Your task to perform on an android device: turn pop-ups on in chrome Image 0: 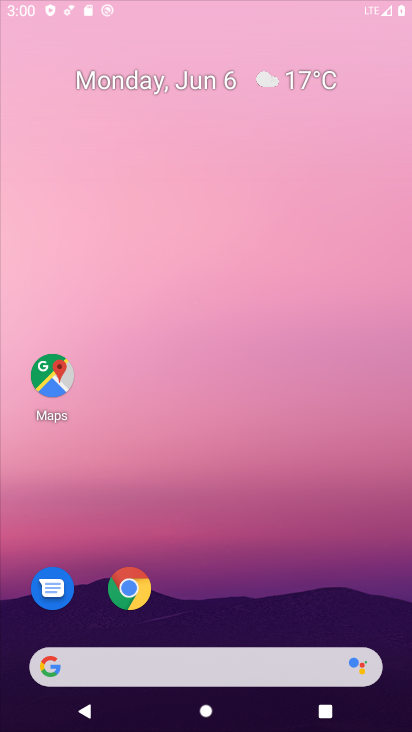
Step 0: drag from (224, 27) to (180, 4)
Your task to perform on an android device: turn pop-ups on in chrome Image 1: 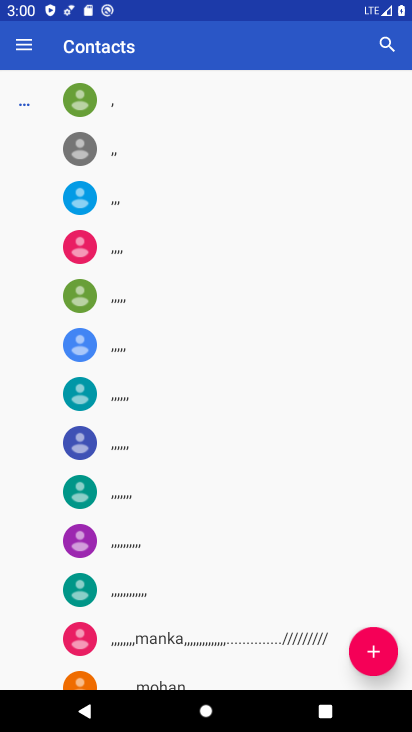
Step 1: press home button
Your task to perform on an android device: turn pop-ups on in chrome Image 2: 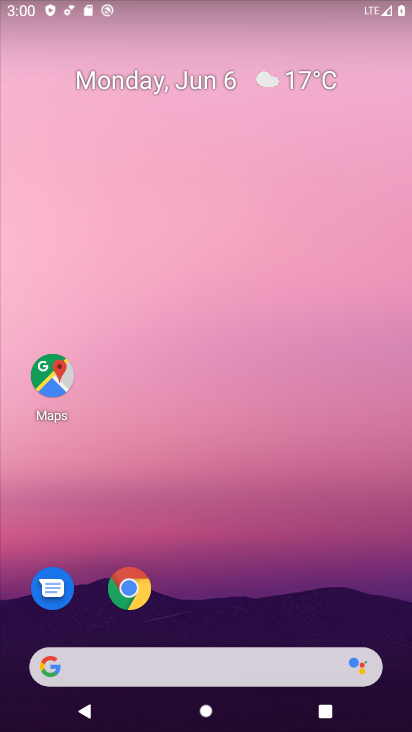
Step 2: click (127, 590)
Your task to perform on an android device: turn pop-ups on in chrome Image 3: 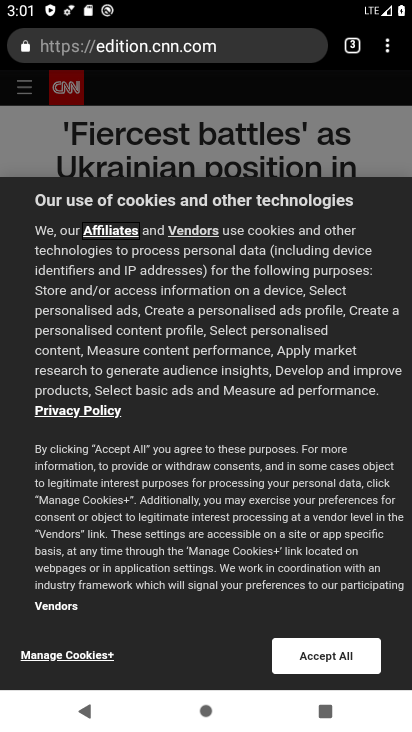
Step 3: drag from (383, 40) to (244, 501)
Your task to perform on an android device: turn pop-ups on in chrome Image 4: 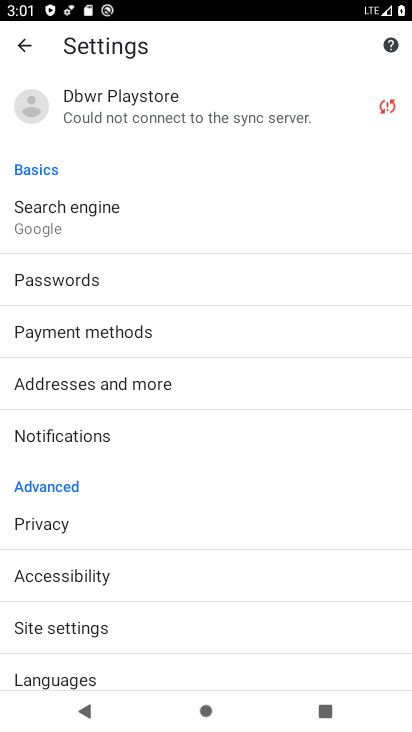
Step 4: click (131, 632)
Your task to perform on an android device: turn pop-ups on in chrome Image 5: 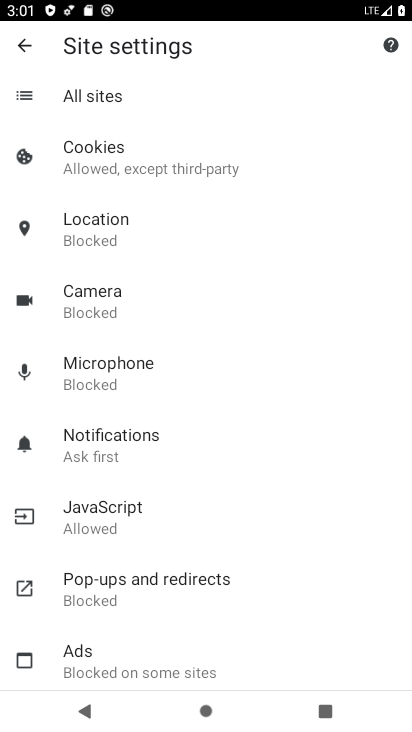
Step 5: click (176, 567)
Your task to perform on an android device: turn pop-ups on in chrome Image 6: 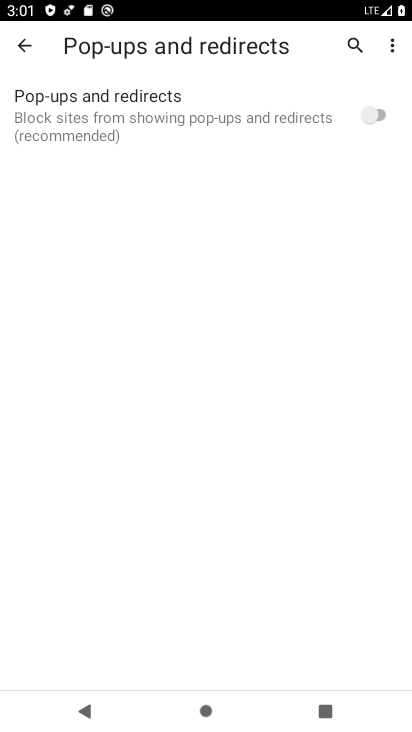
Step 6: click (369, 126)
Your task to perform on an android device: turn pop-ups on in chrome Image 7: 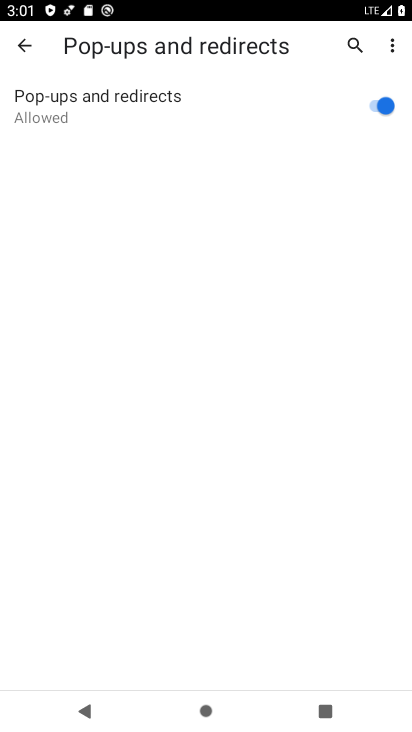
Step 7: task complete